Your task to perform on an android device: read, delete, or share a saved page in the chrome app Image 0: 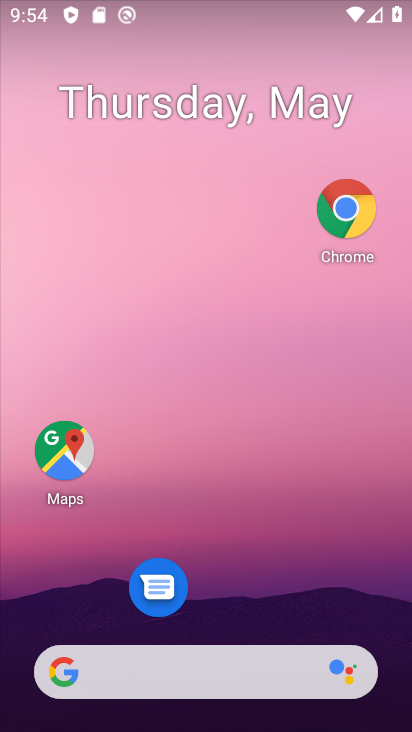
Step 0: click (343, 218)
Your task to perform on an android device: read, delete, or share a saved page in the chrome app Image 1: 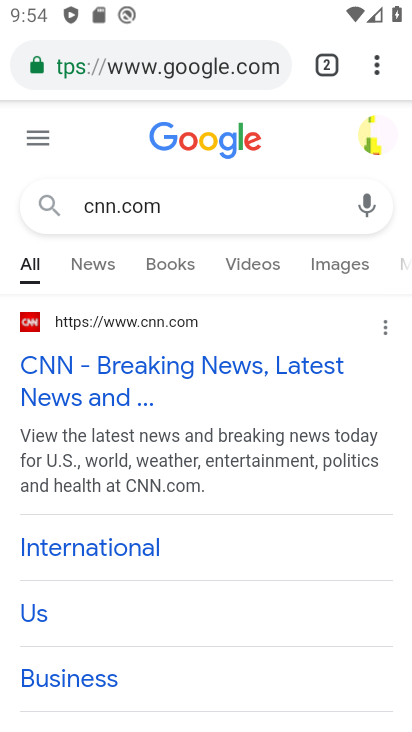
Step 1: click (379, 60)
Your task to perform on an android device: read, delete, or share a saved page in the chrome app Image 2: 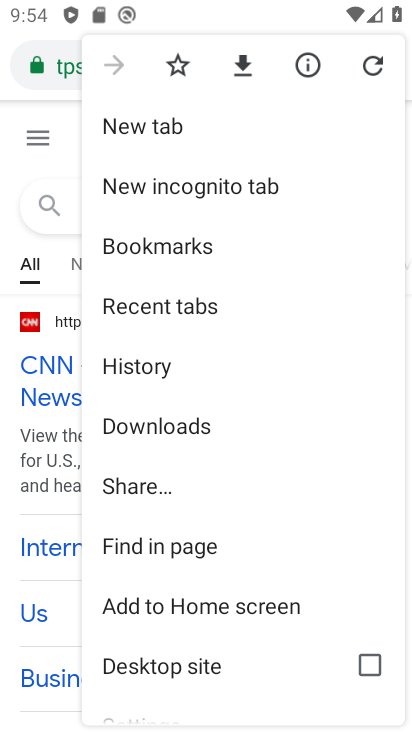
Step 2: click (199, 425)
Your task to perform on an android device: read, delete, or share a saved page in the chrome app Image 3: 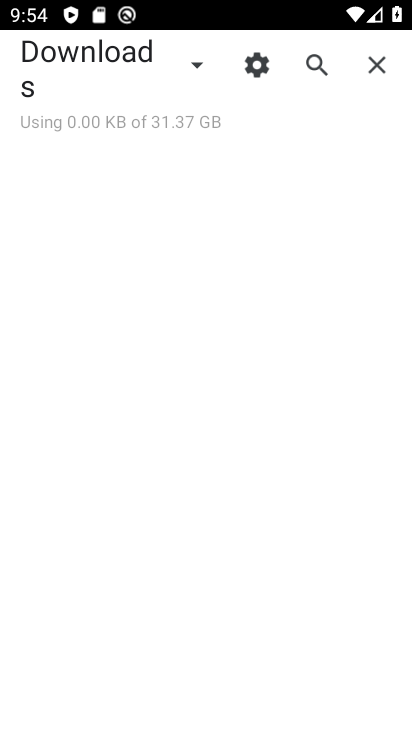
Step 3: click (197, 58)
Your task to perform on an android device: read, delete, or share a saved page in the chrome app Image 4: 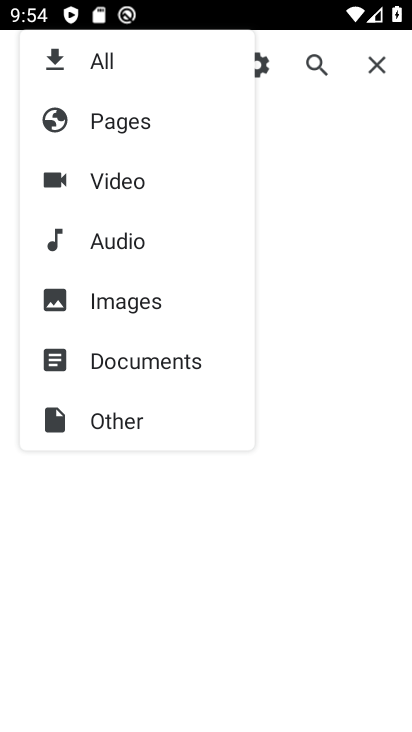
Step 4: click (142, 120)
Your task to perform on an android device: read, delete, or share a saved page in the chrome app Image 5: 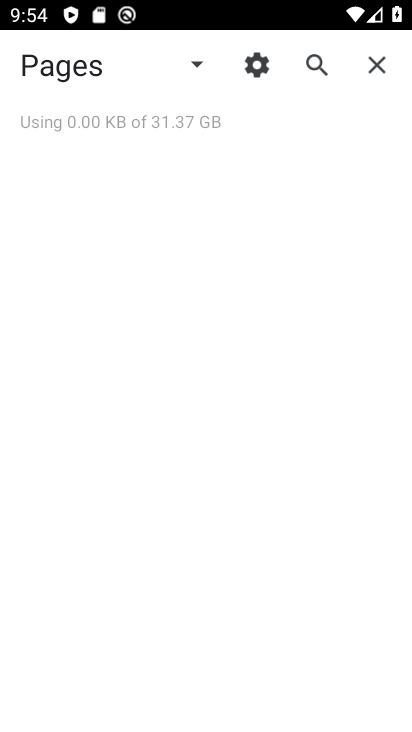
Step 5: task complete